Your task to perform on an android device: toggle translation in the chrome app Image 0: 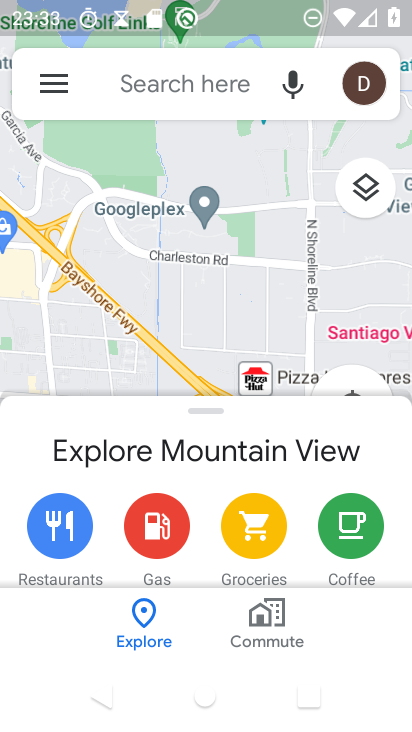
Step 0: press home button
Your task to perform on an android device: toggle translation in the chrome app Image 1: 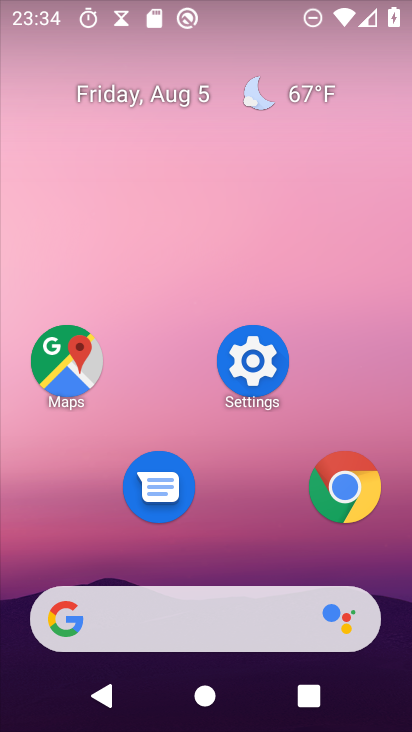
Step 1: click (352, 488)
Your task to perform on an android device: toggle translation in the chrome app Image 2: 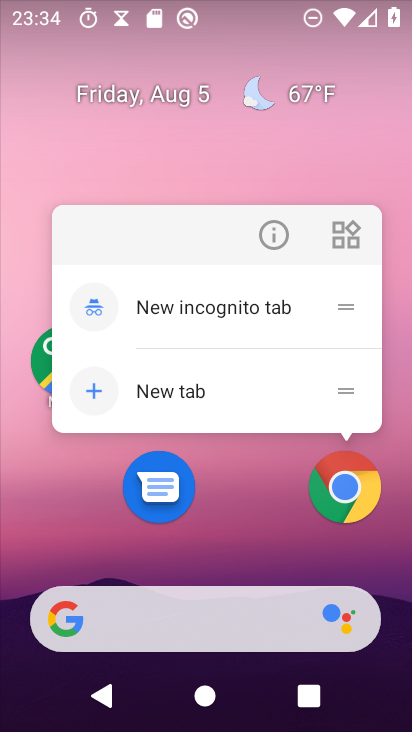
Step 2: click (352, 490)
Your task to perform on an android device: toggle translation in the chrome app Image 3: 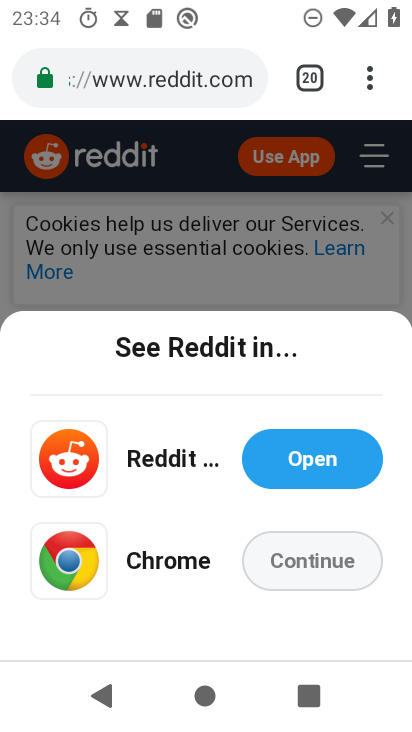
Step 3: drag from (368, 76) to (197, 553)
Your task to perform on an android device: toggle translation in the chrome app Image 4: 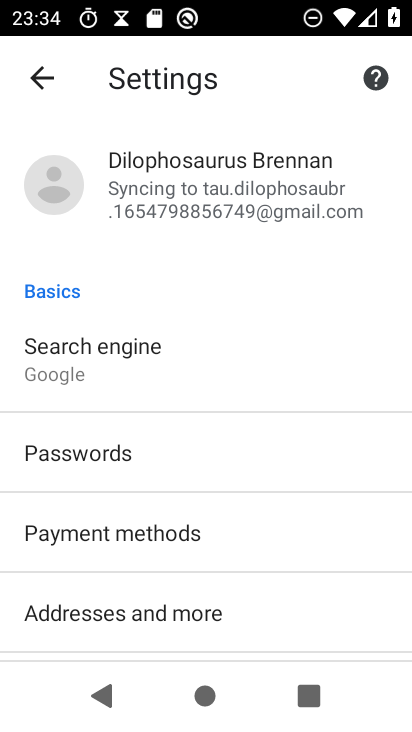
Step 4: drag from (227, 610) to (287, 54)
Your task to perform on an android device: toggle translation in the chrome app Image 5: 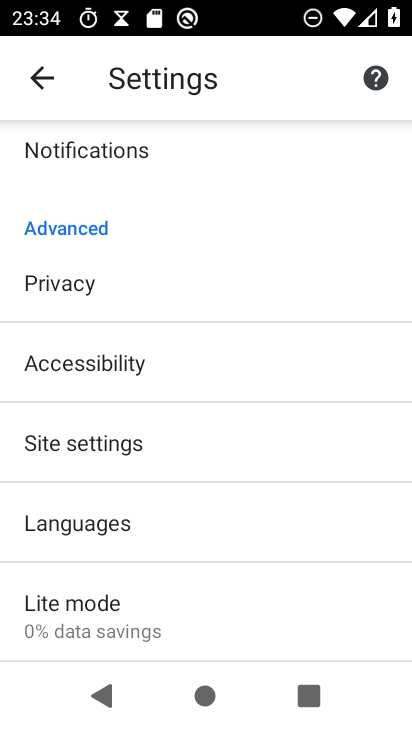
Step 5: click (133, 532)
Your task to perform on an android device: toggle translation in the chrome app Image 6: 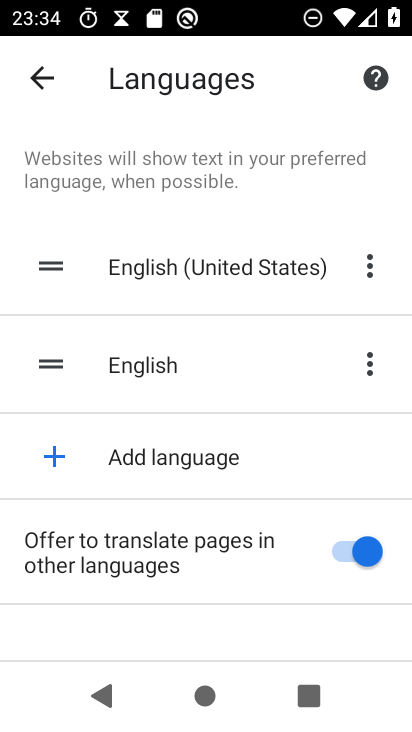
Step 6: click (339, 541)
Your task to perform on an android device: toggle translation in the chrome app Image 7: 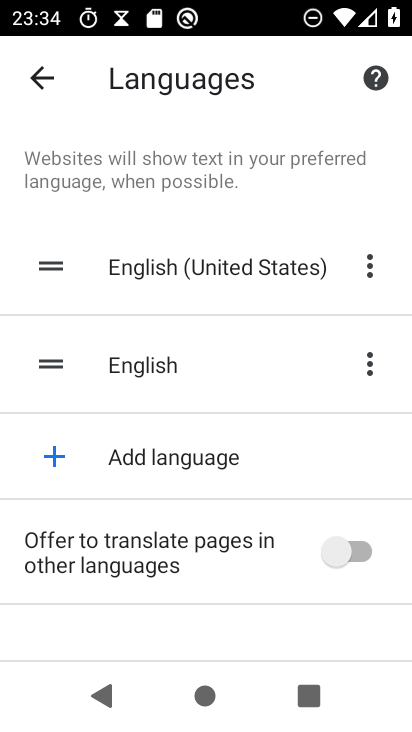
Step 7: task complete